Your task to perform on an android device: Open sound settings Image 0: 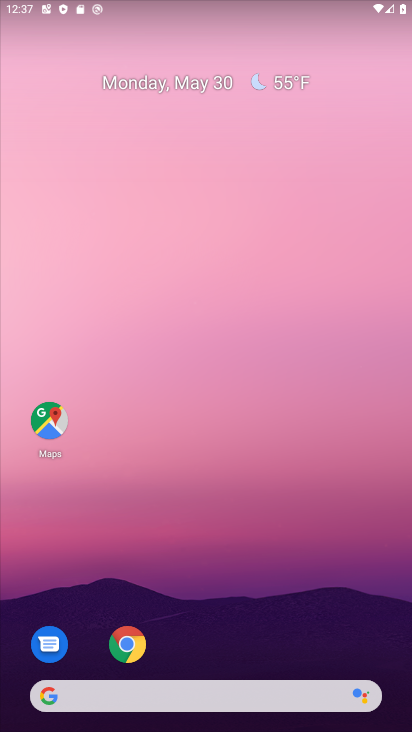
Step 0: drag from (284, 638) to (272, 27)
Your task to perform on an android device: Open sound settings Image 1: 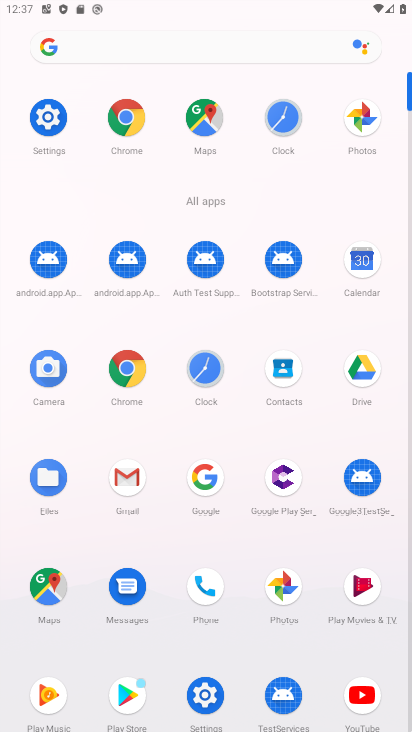
Step 1: click (62, 149)
Your task to perform on an android device: Open sound settings Image 2: 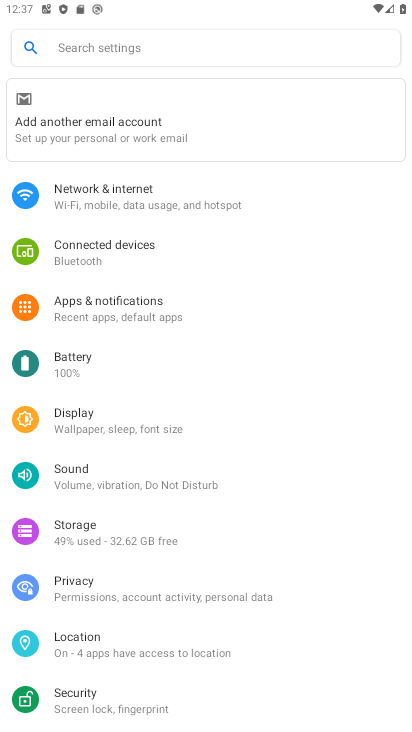
Step 2: click (164, 479)
Your task to perform on an android device: Open sound settings Image 3: 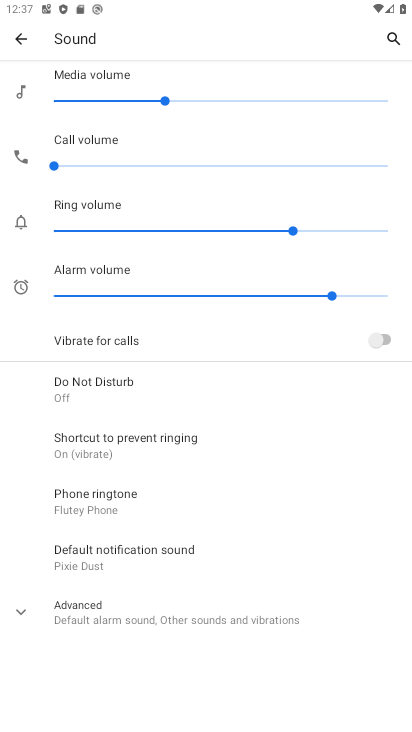
Step 3: task complete